Your task to perform on an android device: When is my next appointment? Image 0: 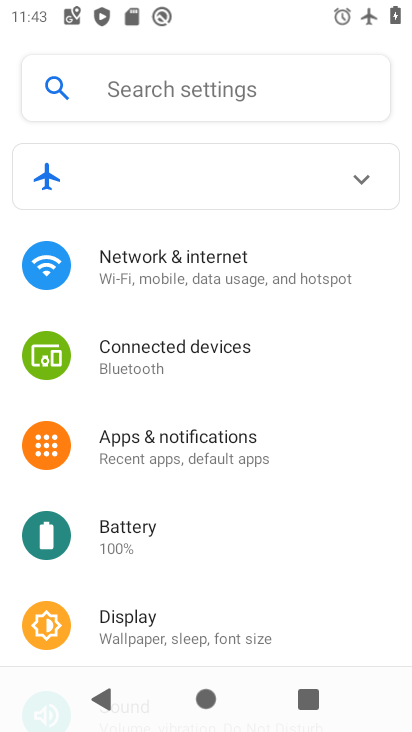
Step 0: press home button
Your task to perform on an android device: When is my next appointment? Image 1: 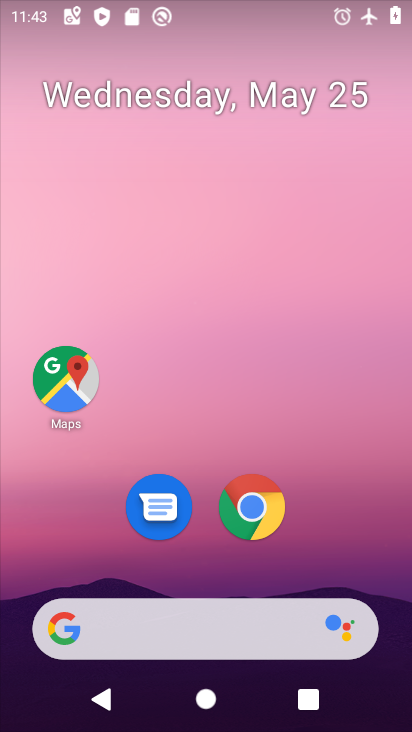
Step 1: drag from (319, 566) to (242, 90)
Your task to perform on an android device: When is my next appointment? Image 2: 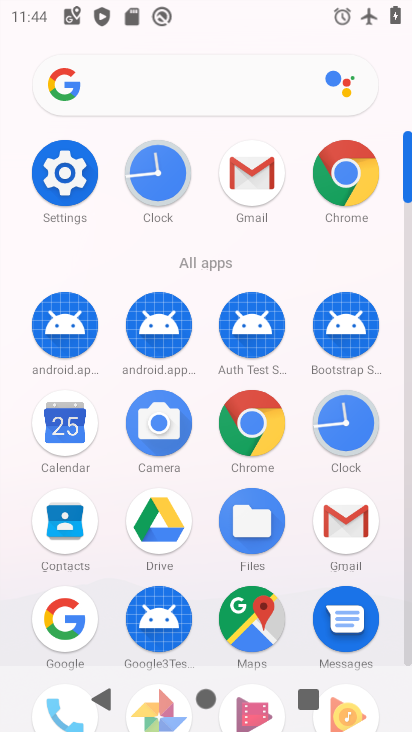
Step 2: click (64, 427)
Your task to perform on an android device: When is my next appointment? Image 3: 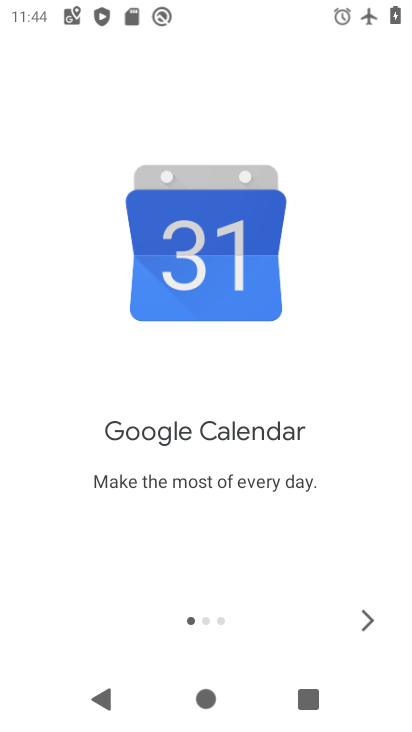
Step 3: click (370, 617)
Your task to perform on an android device: When is my next appointment? Image 4: 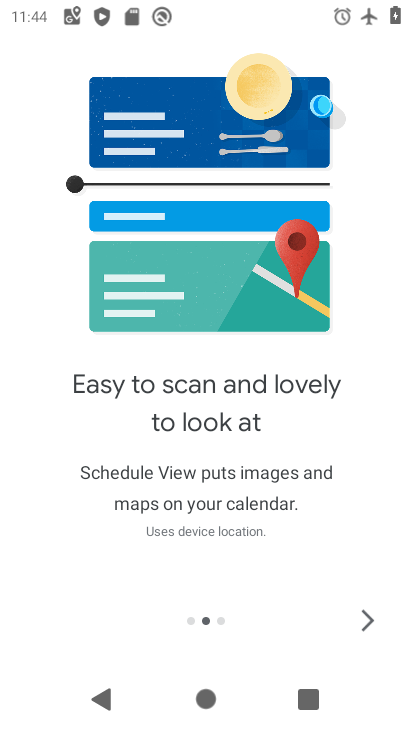
Step 4: click (370, 617)
Your task to perform on an android device: When is my next appointment? Image 5: 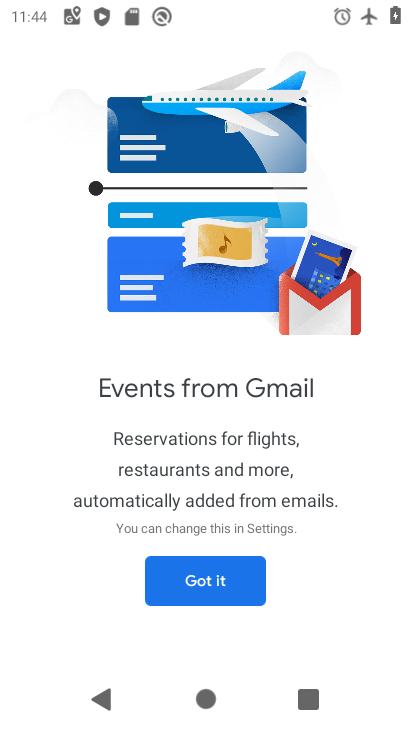
Step 5: click (200, 582)
Your task to perform on an android device: When is my next appointment? Image 6: 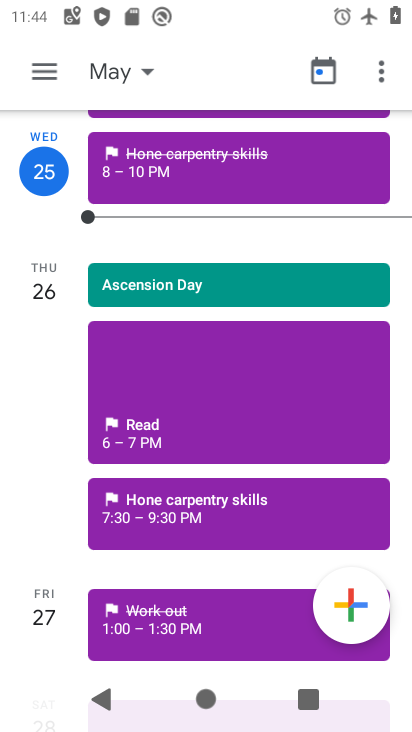
Step 6: click (145, 71)
Your task to perform on an android device: When is my next appointment? Image 7: 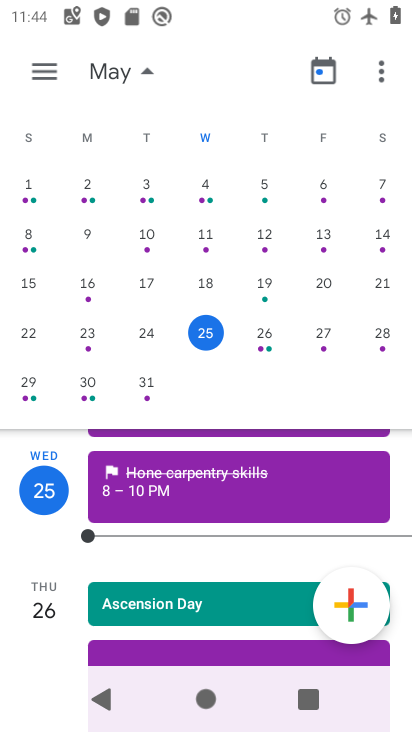
Step 7: click (272, 333)
Your task to perform on an android device: When is my next appointment? Image 8: 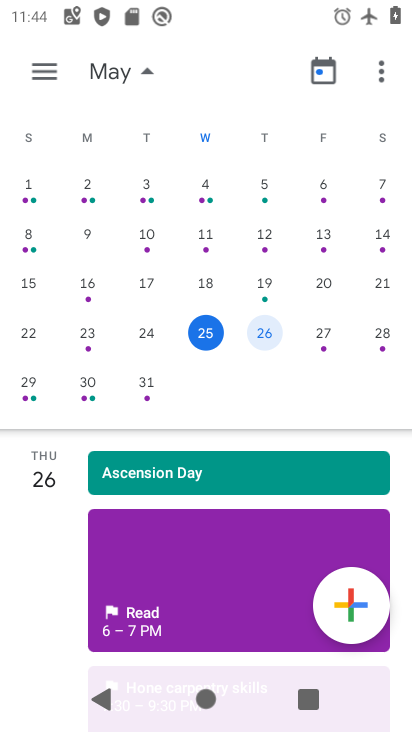
Step 8: click (41, 71)
Your task to perform on an android device: When is my next appointment? Image 9: 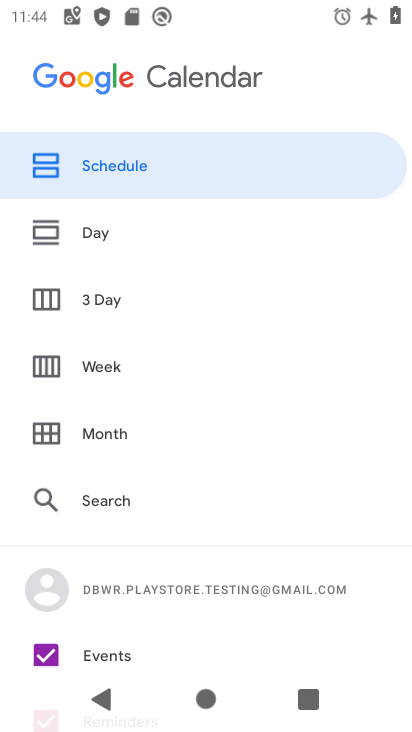
Step 9: click (94, 158)
Your task to perform on an android device: When is my next appointment? Image 10: 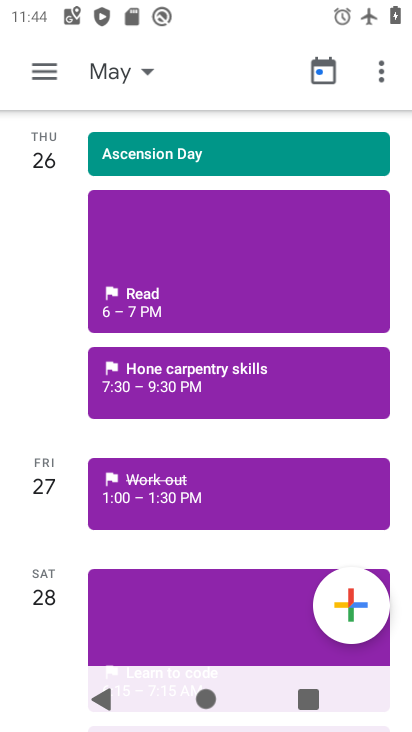
Step 10: task complete